Your task to perform on an android device: turn on javascript in the chrome app Image 0: 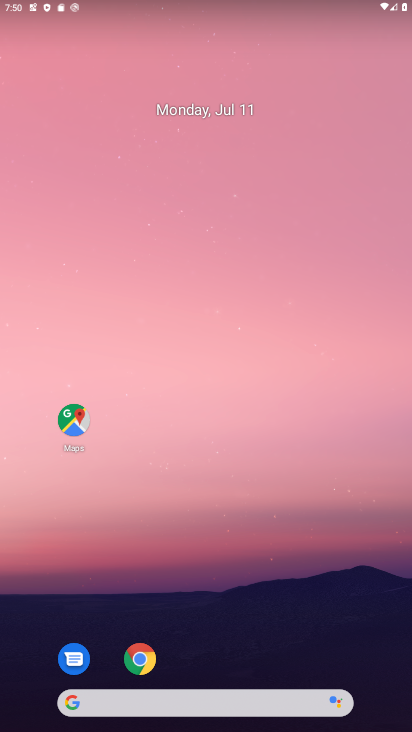
Step 0: drag from (197, 452) to (211, 188)
Your task to perform on an android device: turn on javascript in the chrome app Image 1: 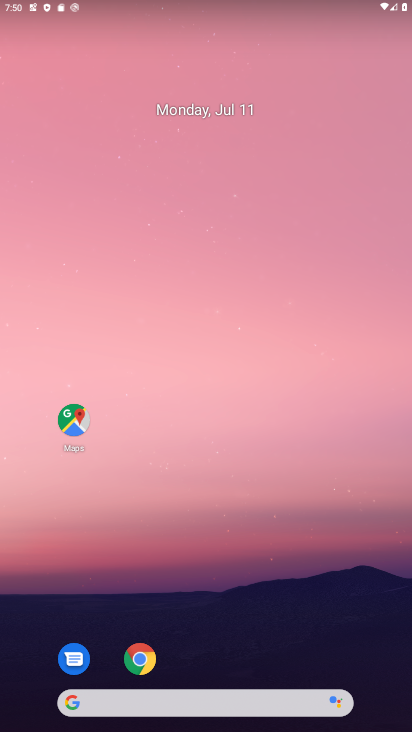
Step 1: drag from (182, 647) to (287, 108)
Your task to perform on an android device: turn on javascript in the chrome app Image 2: 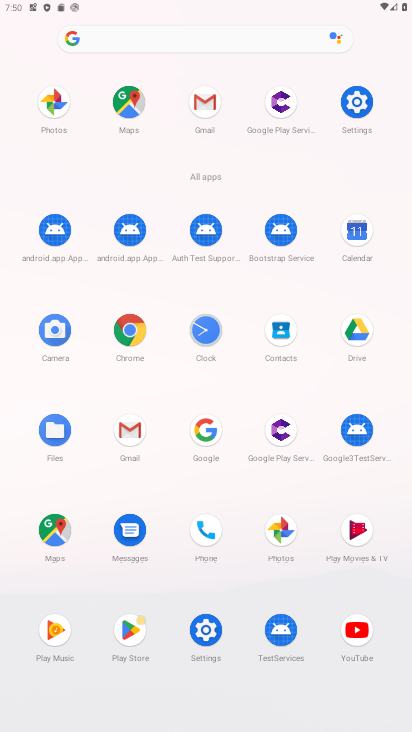
Step 2: click (128, 334)
Your task to perform on an android device: turn on javascript in the chrome app Image 3: 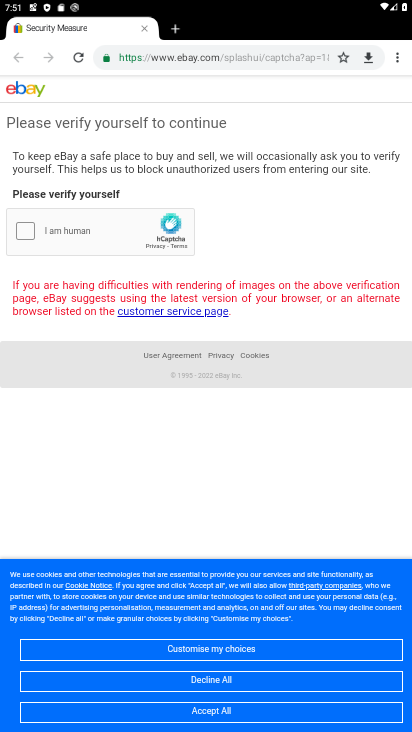
Step 3: drag from (206, 499) to (275, 191)
Your task to perform on an android device: turn on javascript in the chrome app Image 4: 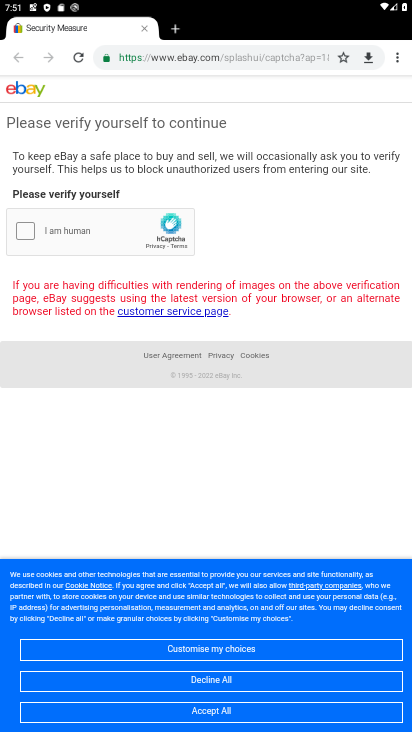
Step 4: drag from (256, 422) to (293, 246)
Your task to perform on an android device: turn on javascript in the chrome app Image 5: 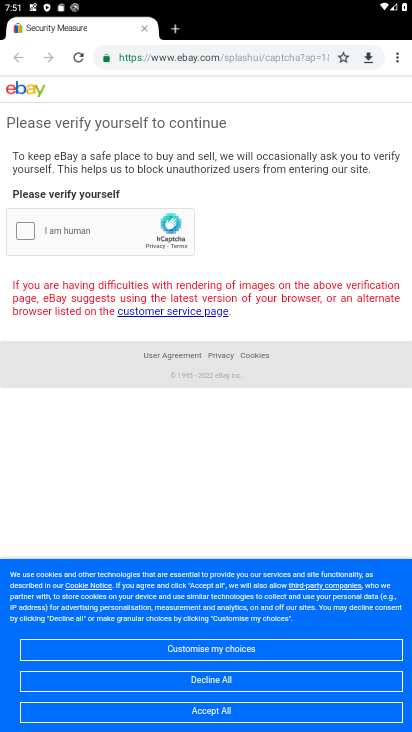
Step 5: drag from (290, 195) to (287, 598)
Your task to perform on an android device: turn on javascript in the chrome app Image 6: 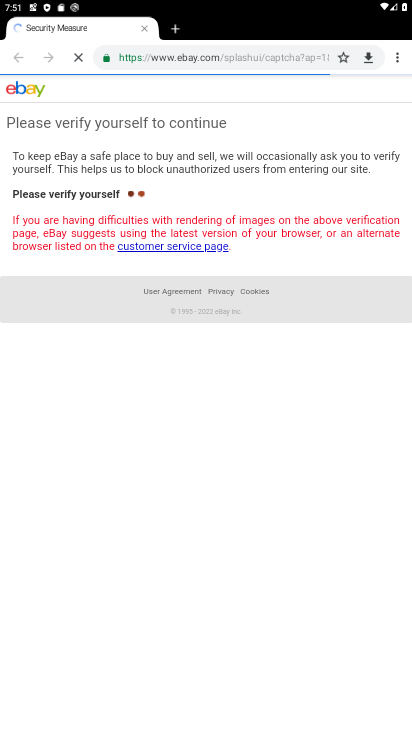
Step 6: click (395, 52)
Your task to perform on an android device: turn on javascript in the chrome app Image 7: 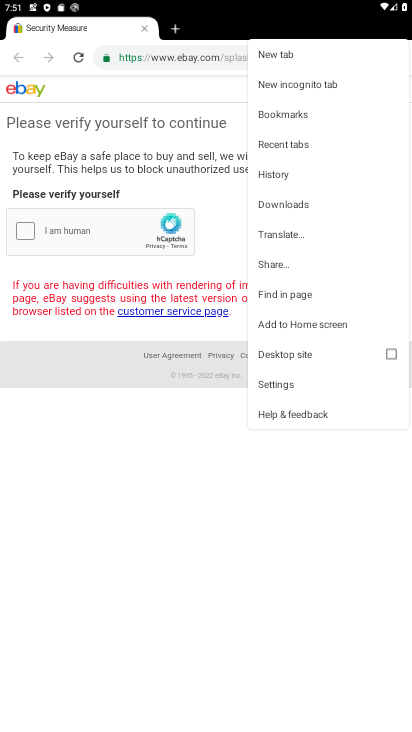
Step 7: click (287, 386)
Your task to perform on an android device: turn on javascript in the chrome app Image 8: 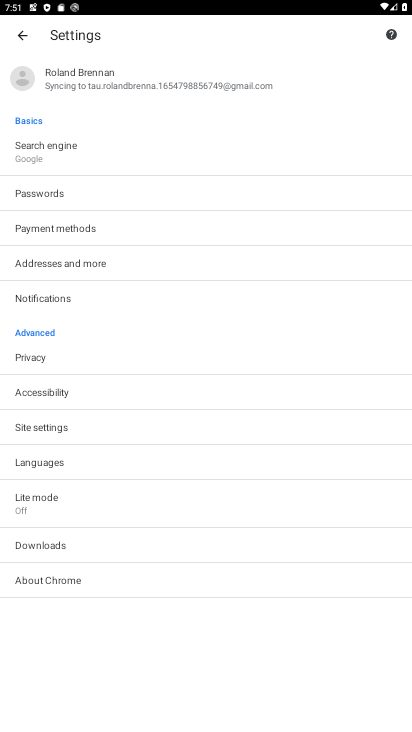
Step 8: click (49, 420)
Your task to perform on an android device: turn on javascript in the chrome app Image 9: 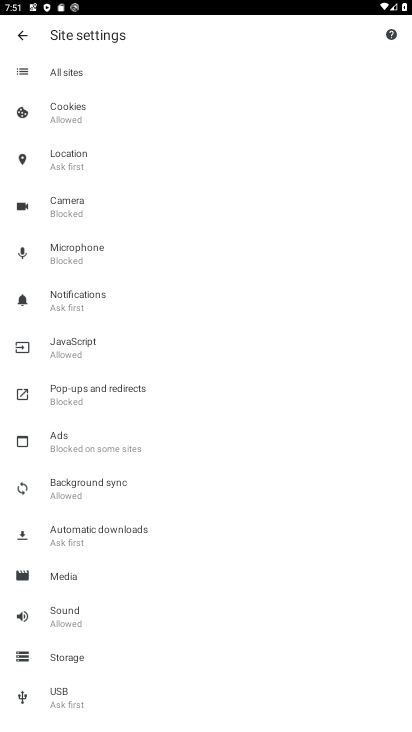
Step 9: click (79, 344)
Your task to perform on an android device: turn on javascript in the chrome app Image 10: 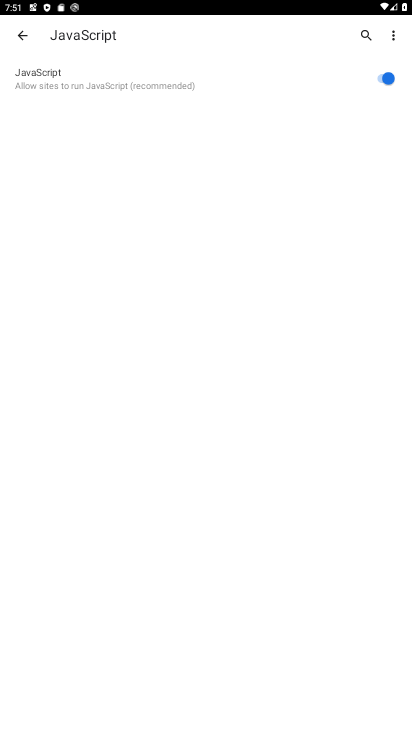
Step 10: task complete